Your task to perform on an android device: Open Google Maps and go to "Timeline" Image 0: 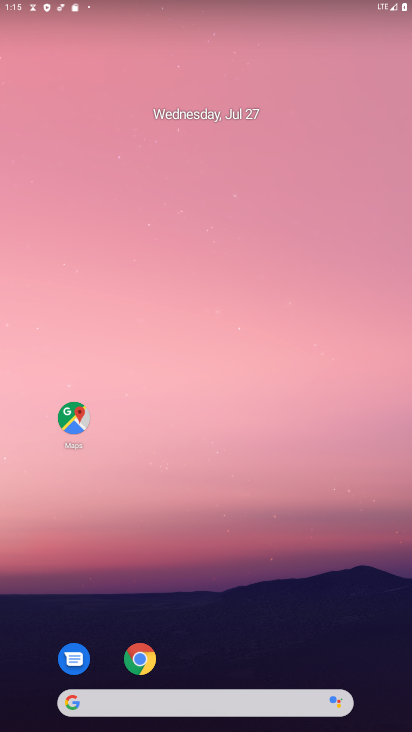
Step 0: drag from (209, 727) to (196, 116)
Your task to perform on an android device: Open Google Maps and go to "Timeline" Image 1: 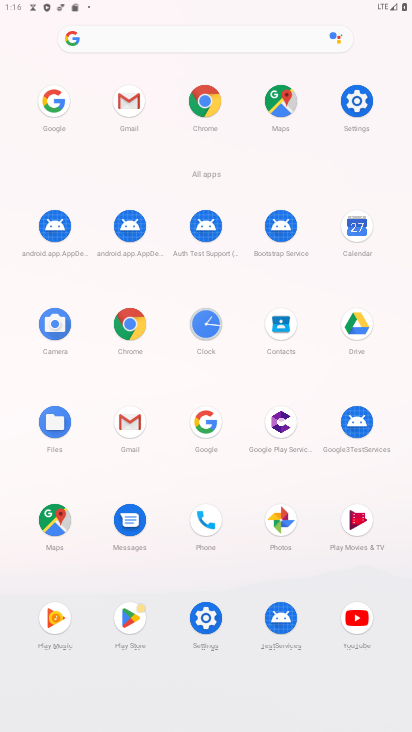
Step 1: click (51, 524)
Your task to perform on an android device: Open Google Maps and go to "Timeline" Image 2: 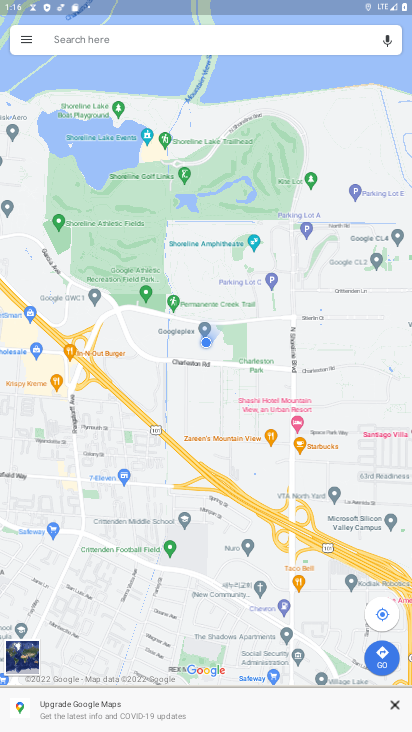
Step 2: click (26, 43)
Your task to perform on an android device: Open Google Maps and go to "Timeline" Image 3: 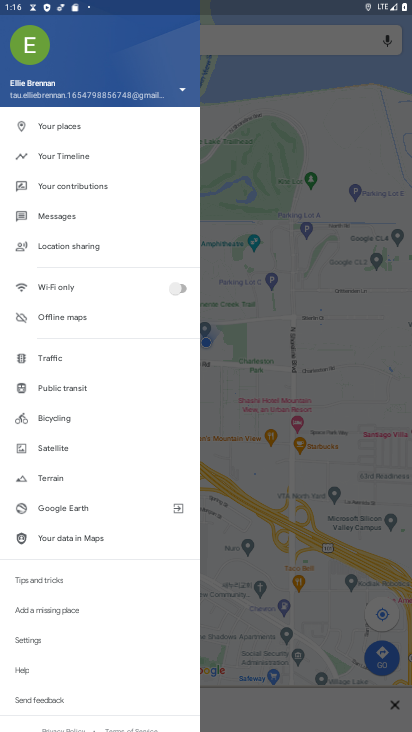
Step 3: click (63, 150)
Your task to perform on an android device: Open Google Maps and go to "Timeline" Image 4: 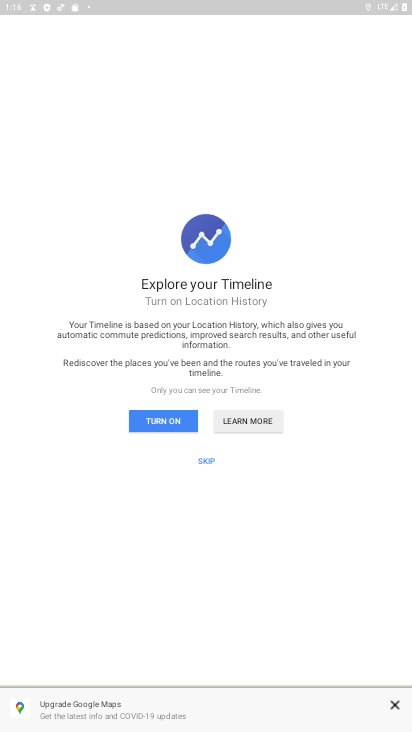
Step 4: click (206, 457)
Your task to perform on an android device: Open Google Maps and go to "Timeline" Image 5: 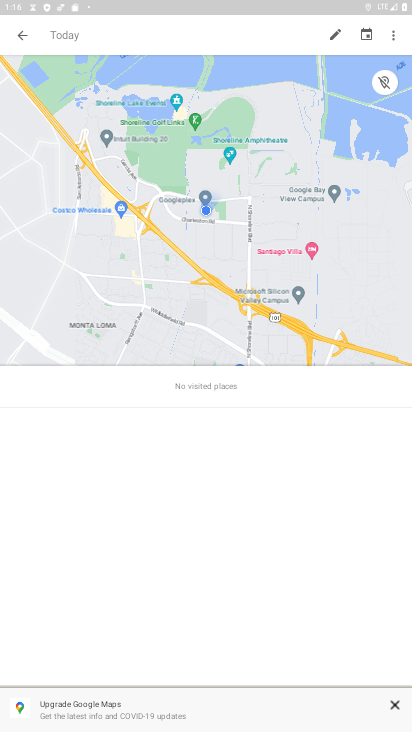
Step 5: task complete